Your task to perform on an android device: find which apps use the phone's location Image 0: 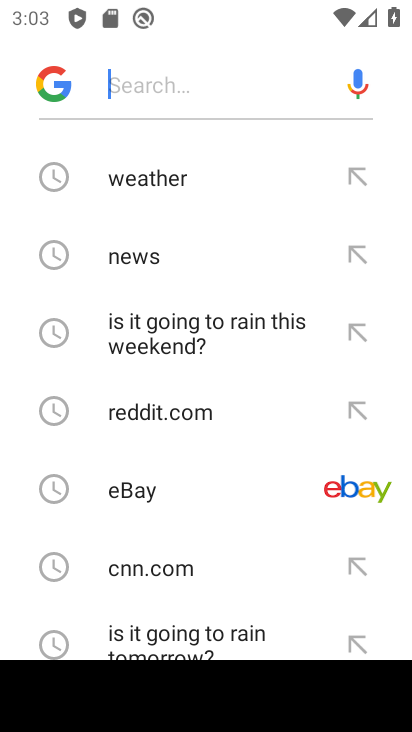
Step 0: press home button
Your task to perform on an android device: find which apps use the phone's location Image 1: 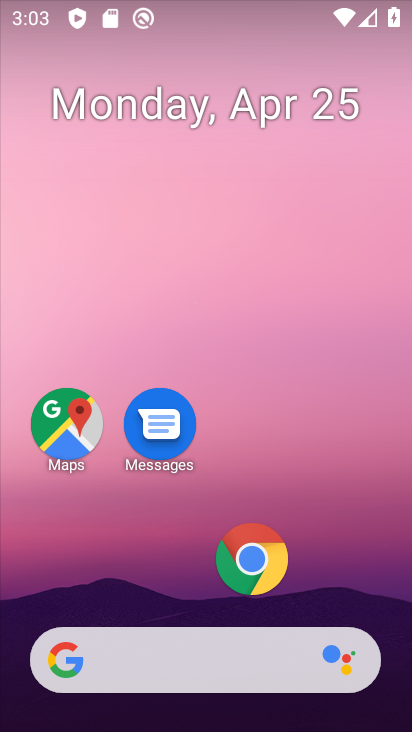
Step 1: drag from (151, 579) to (182, 89)
Your task to perform on an android device: find which apps use the phone's location Image 2: 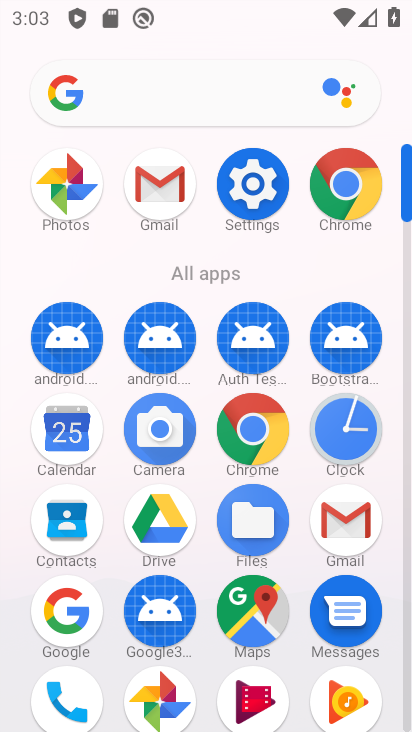
Step 2: click (258, 161)
Your task to perform on an android device: find which apps use the phone's location Image 3: 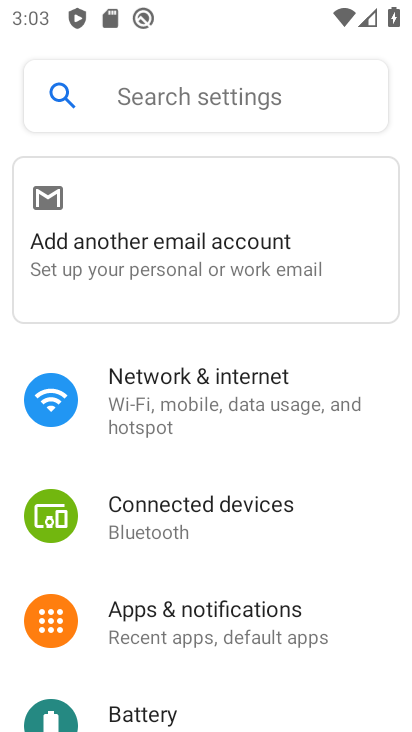
Step 3: drag from (218, 699) to (260, 283)
Your task to perform on an android device: find which apps use the phone's location Image 4: 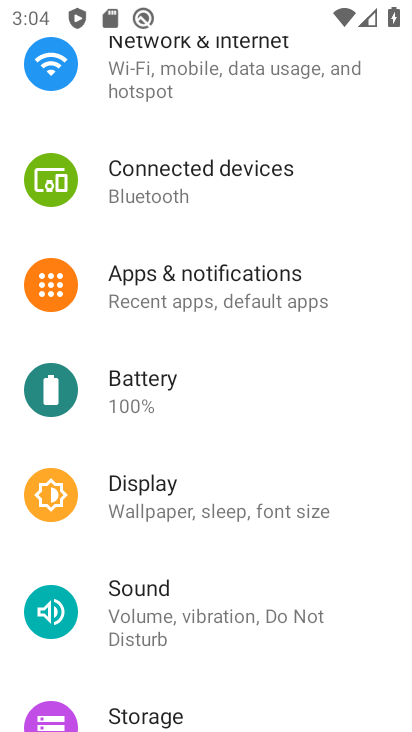
Step 4: drag from (187, 582) to (231, 187)
Your task to perform on an android device: find which apps use the phone's location Image 5: 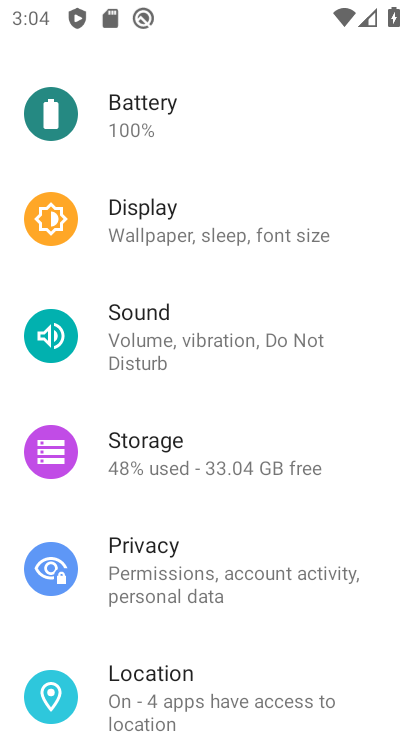
Step 5: click (209, 687)
Your task to perform on an android device: find which apps use the phone's location Image 6: 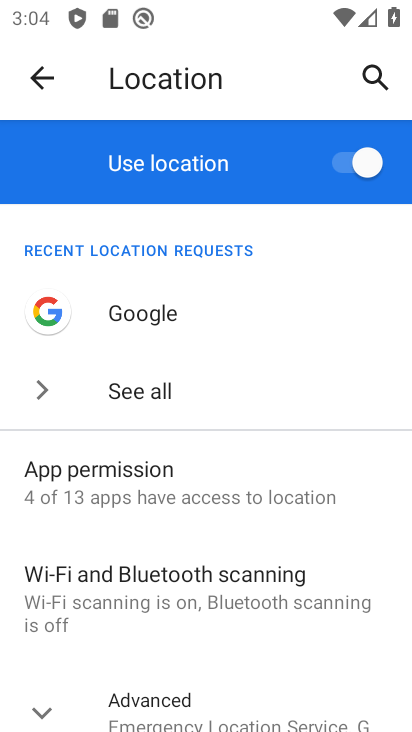
Step 6: click (211, 478)
Your task to perform on an android device: find which apps use the phone's location Image 7: 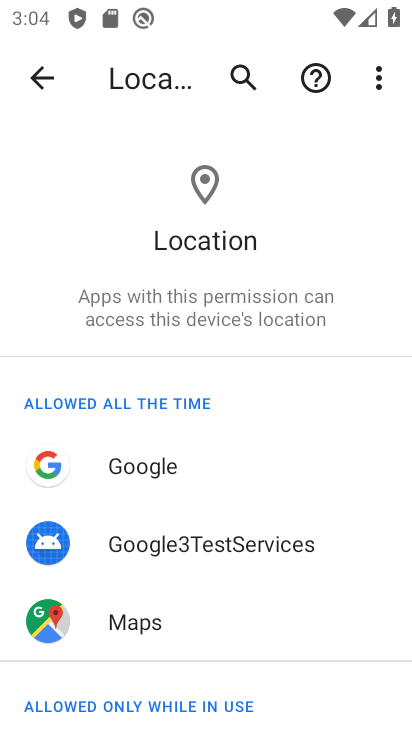
Step 7: task complete